Your task to perform on an android device: Go to sound settings Image 0: 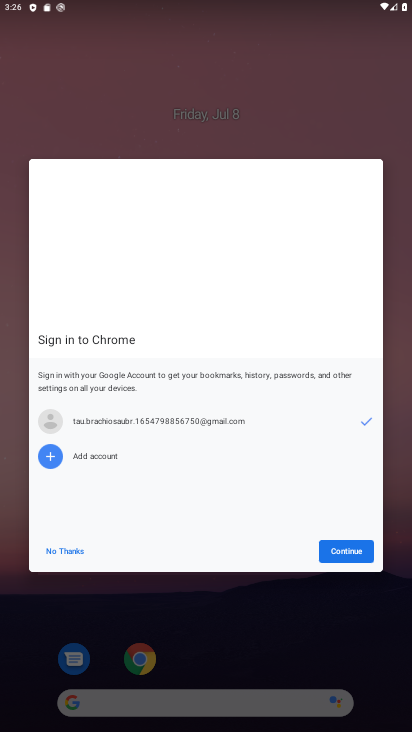
Step 0: drag from (164, 6) to (127, 475)
Your task to perform on an android device: Go to sound settings Image 1: 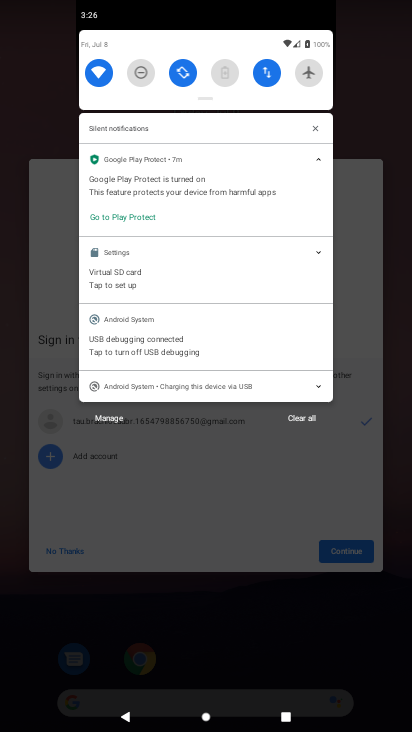
Step 1: click (161, 656)
Your task to perform on an android device: Go to sound settings Image 2: 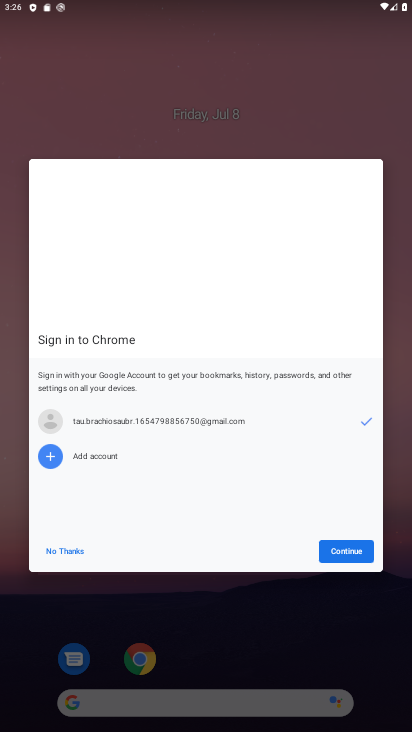
Step 2: click (161, 656)
Your task to perform on an android device: Go to sound settings Image 3: 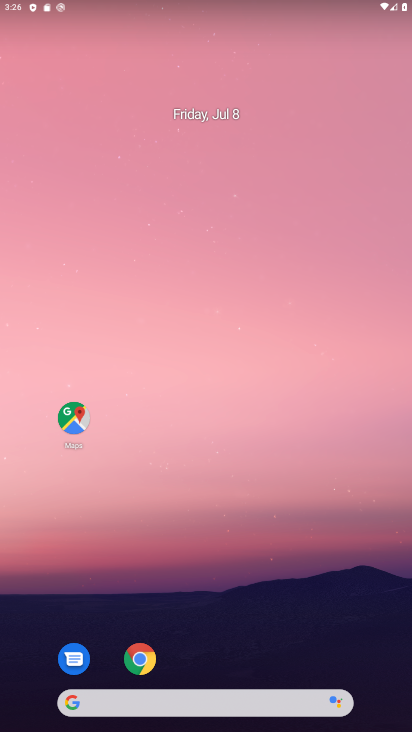
Step 3: drag from (222, 7) to (275, 613)
Your task to perform on an android device: Go to sound settings Image 4: 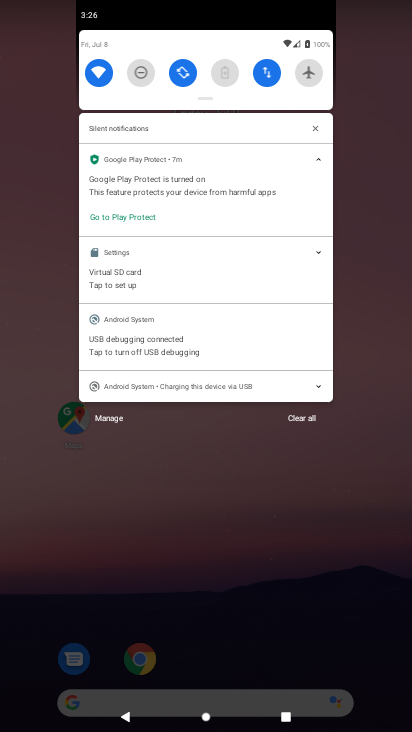
Step 4: drag from (162, 35) to (224, 510)
Your task to perform on an android device: Go to sound settings Image 5: 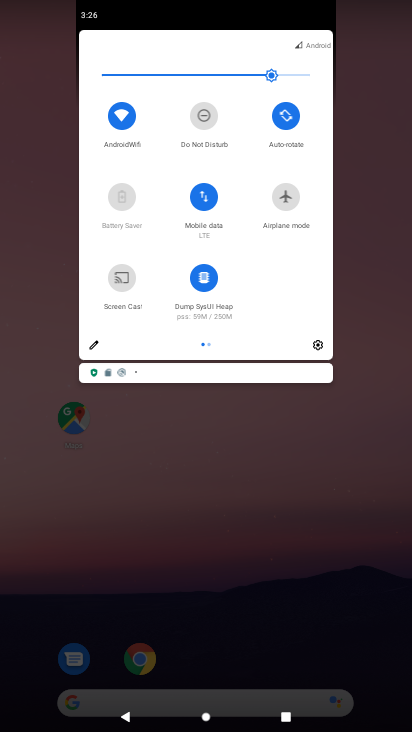
Step 5: click (316, 352)
Your task to perform on an android device: Go to sound settings Image 6: 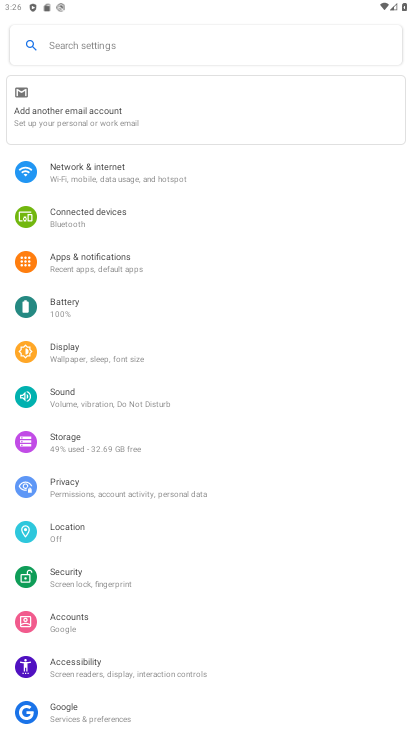
Step 6: click (168, 397)
Your task to perform on an android device: Go to sound settings Image 7: 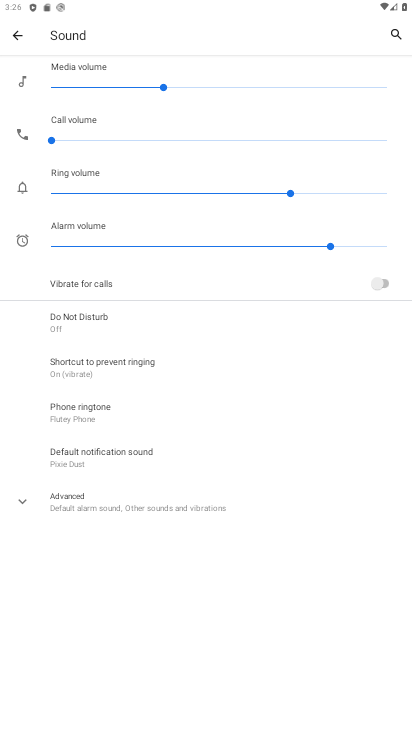
Step 7: task complete